Your task to perform on an android device: turn on bluetooth scan Image 0: 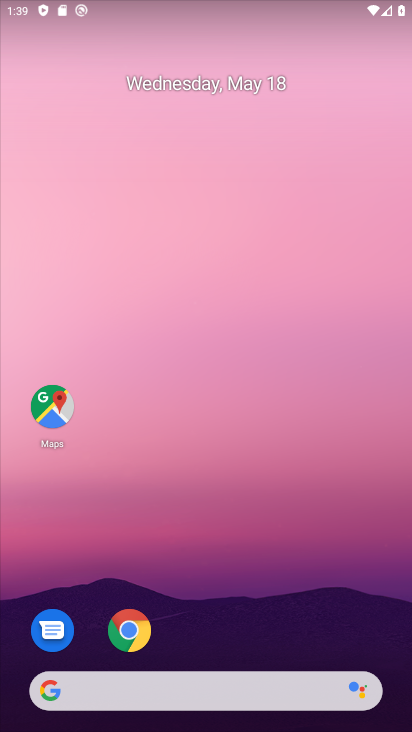
Step 0: drag from (201, 567) to (134, 129)
Your task to perform on an android device: turn on bluetooth scan Image 1: 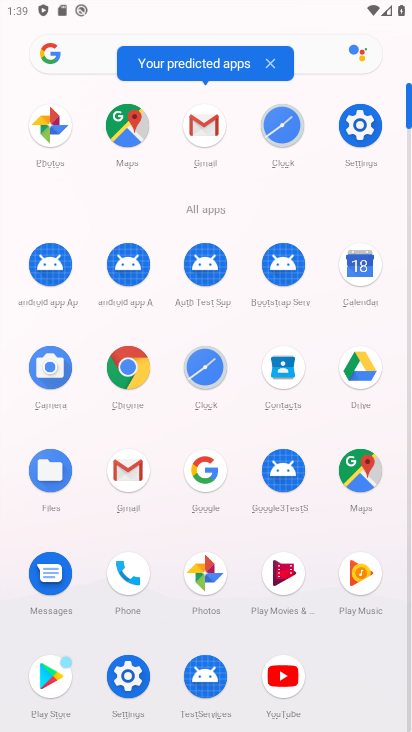
Step 1: click (373, 135)
Your task to perform on an android device: turn on bluetooth scan Image 2: 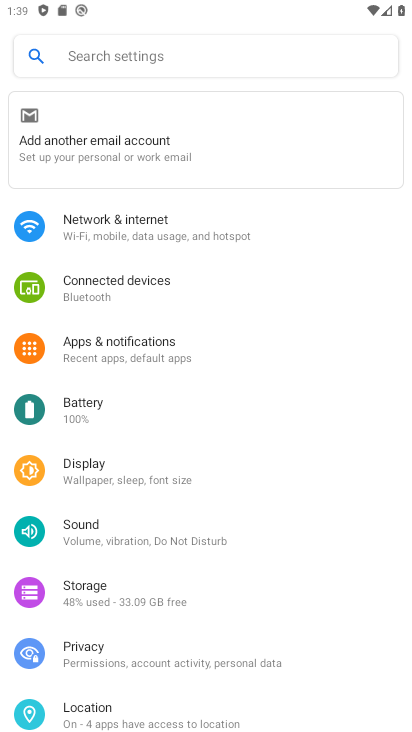
Step 2: click (102, 713)
Your task to perform on an android device: turn on bluetooth scan Image 3: 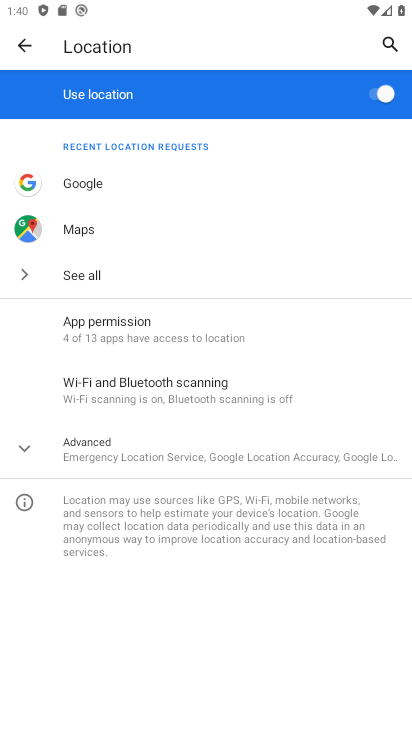
Step 3: click (250, 399)
Your task to perform on an android device: turn on bluetooth scan Image 4: 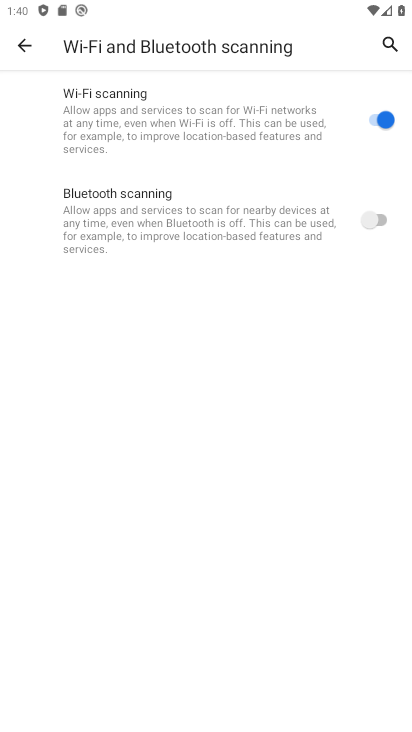
Step 4: click (375, 221)
Your task to perform on an android device: turn on bluetooth scan Image 5: 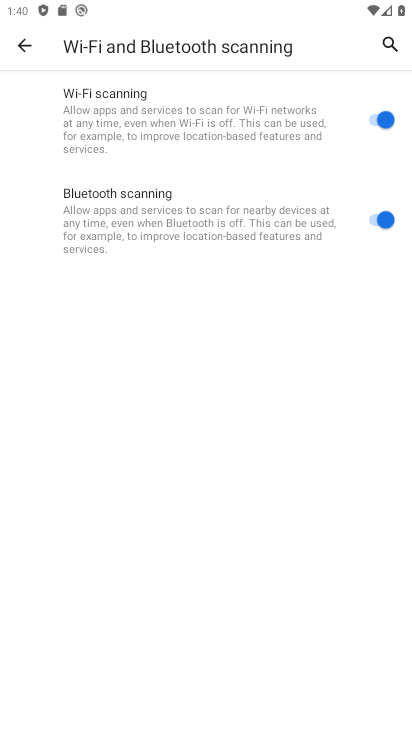
Step 5: task complete